Your task to perform on an android device: Find coffee shops on Maps Image 0: 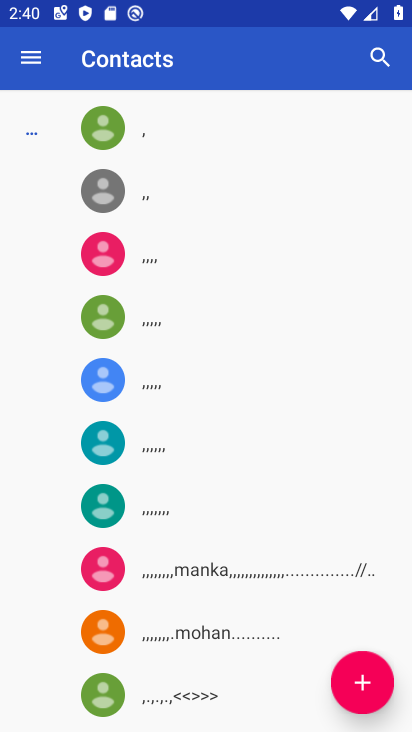
Step 0: press home button
Your task to perform on an android device: Find coffee shops on Maps Image 1: 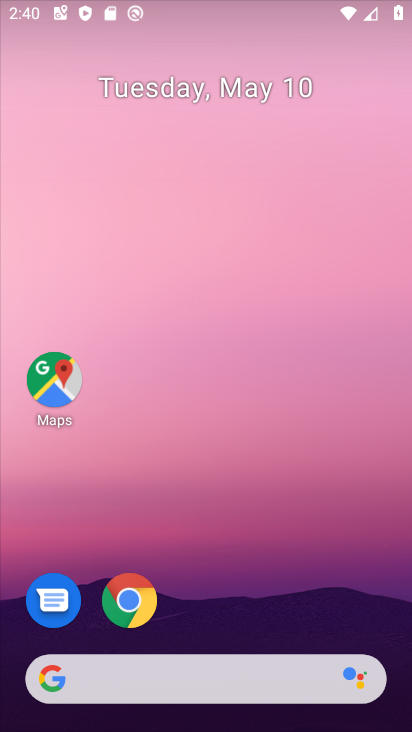
Step 1: drag from (229, 624) to (226, 289)
Your task to perform on an android device: Find coffee shops on Maps Image 2: 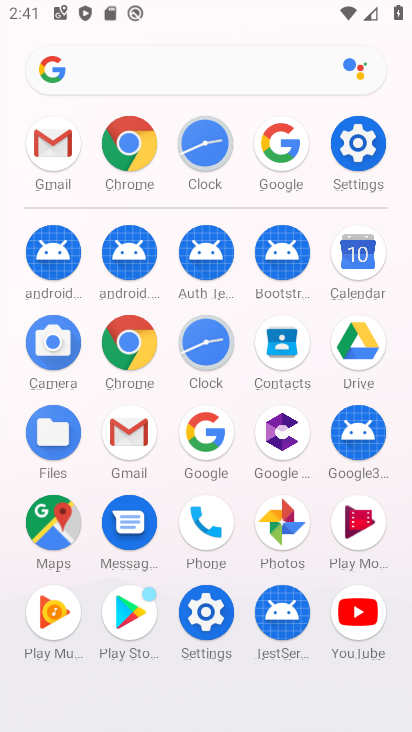
Step 2: click (58, 532)
Your task to perform on an android device: Find coffee shops on Maps Image 3: 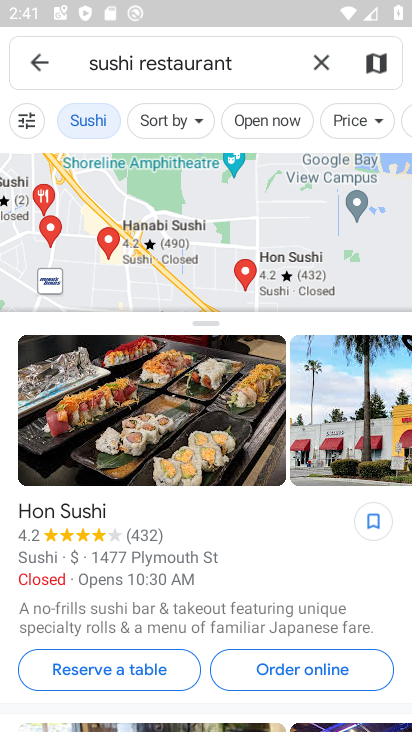
Step 3: click (314, 58)
Your task to perform on an android device: Find coffee shops on Maps Image 4: 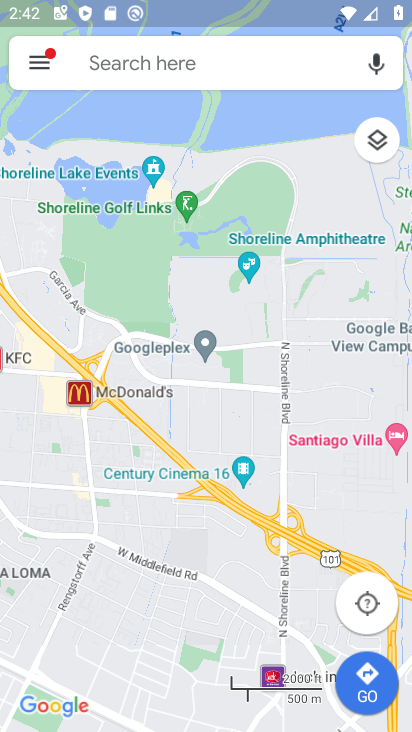
Step 4: click (249, 69)
Your task to perform on an android device: Find coffee shops on Maps Image 5: 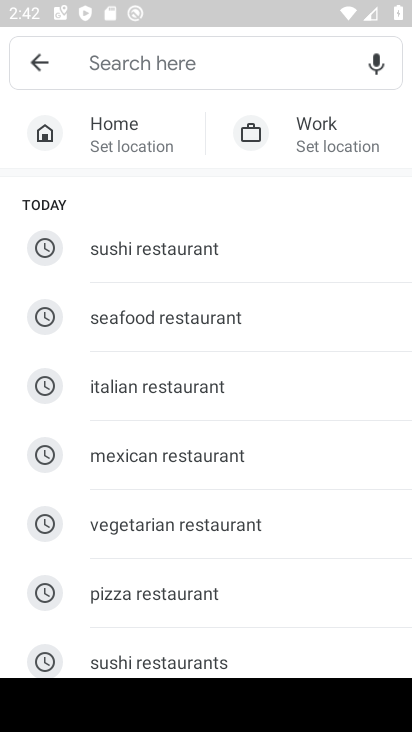
Step 5: drag from (186, 595) to (236, 255)
Your task to perform on an android device: Find coffee shops on Maps Image 6: 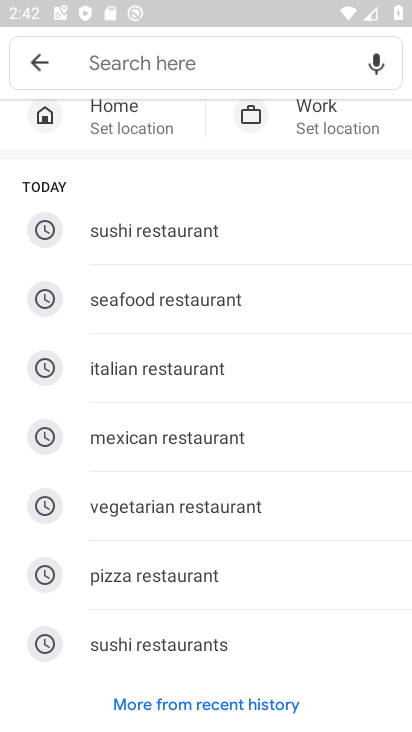
Step 6: type "coffee shops"
Your task to perform on an android device: Find coffee shops on Maps Image 7: 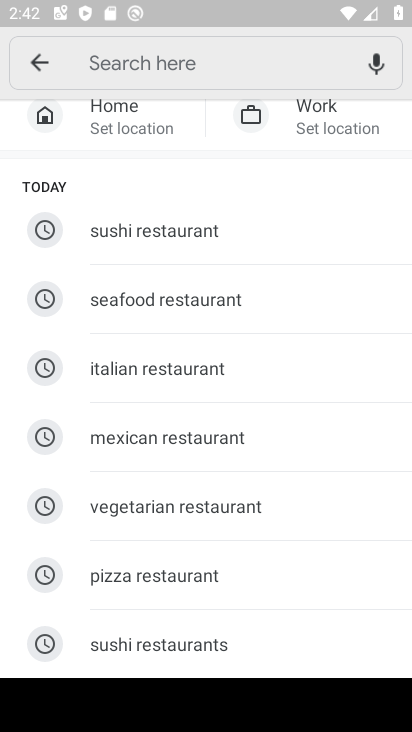
Step 7: click (229, 56)
Your task to perform on an android device: Find coffee shops on Maps Image 8: 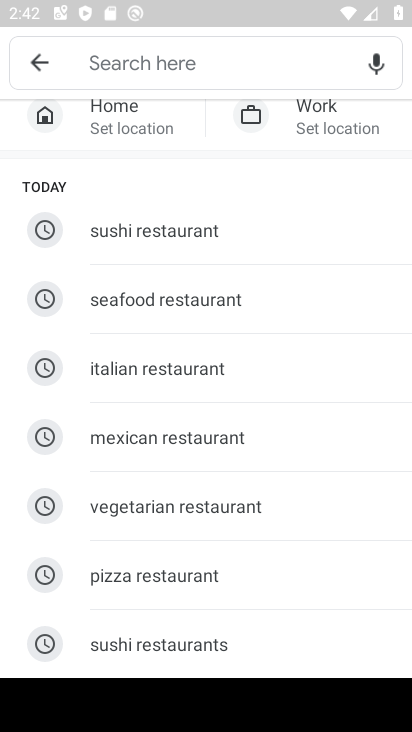
Step 8: type "coffee shops"
Your task to perform on an android device: Find coffee shops on Maps Image 9: 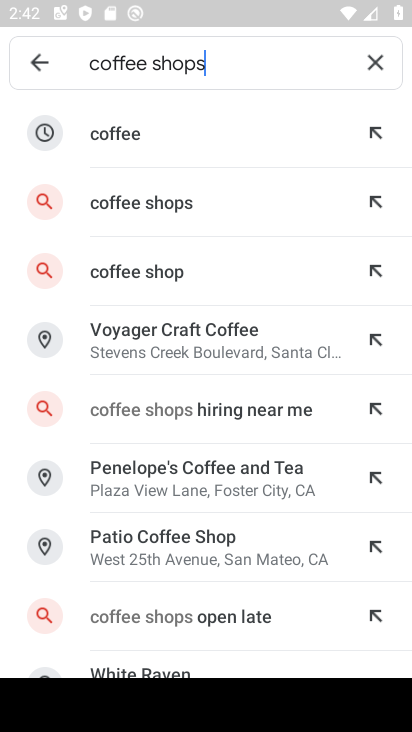
Step 9: click (243, 189)
Your task to perform on an android device: Find coffee shops on Maps Image 10: 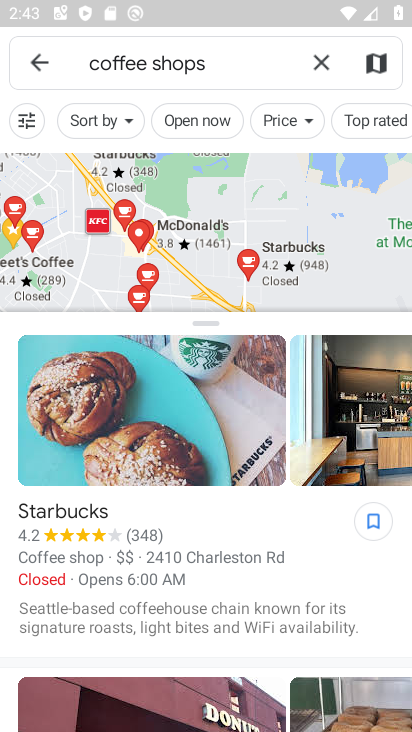
Step 10: task complete